Your task to perform on an android device: open a bookmark in the chrome app Image 0: 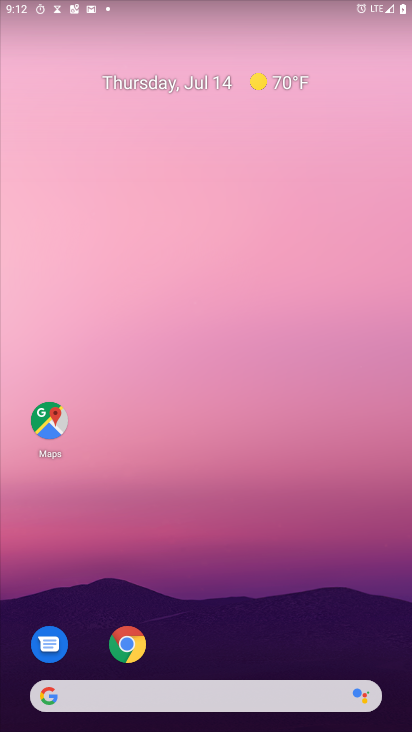
Step 0: click (125, 639)
Your task to perform on an android device: open a bookmark in the chrome app Image 1: 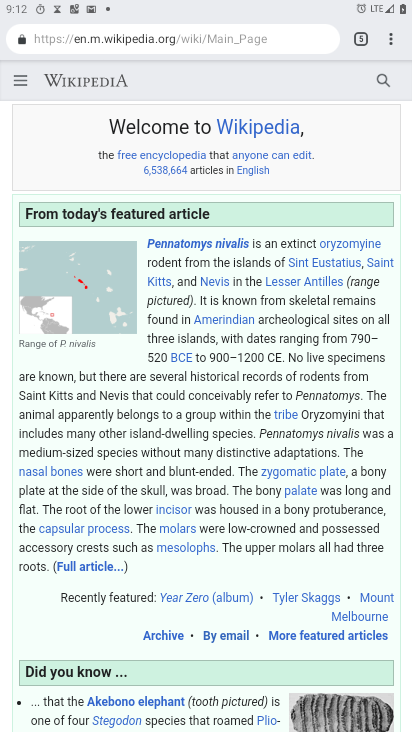
Step 1: task complete